Your task to perform on an android device: uninstall "Gmail" Image 0: 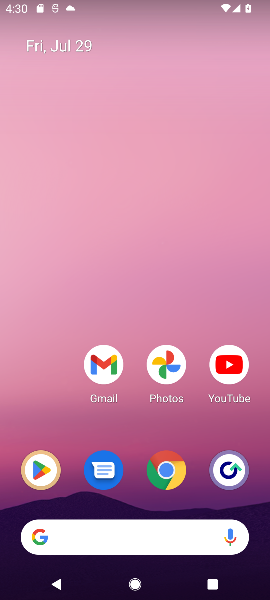
Step 0: click (50, 473)
Your task to perform on an android device: uninstall "Gmail" Image 1: 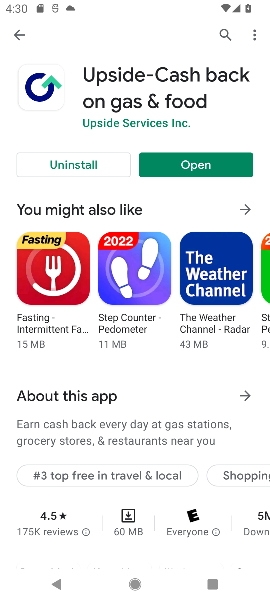
Step 1: click (221, 29)
Your task to perform on an android device: uninstall "Gmail" Image 2: 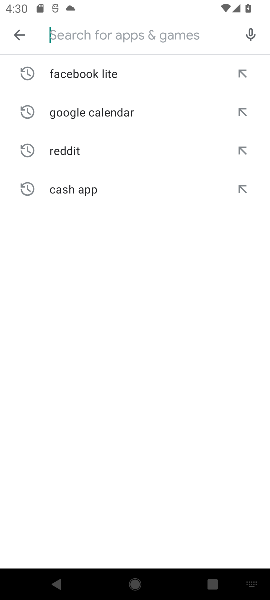
Step 2: type "gmail"
Your task to perform on an android device: uninstall "Gmail" Image 3: 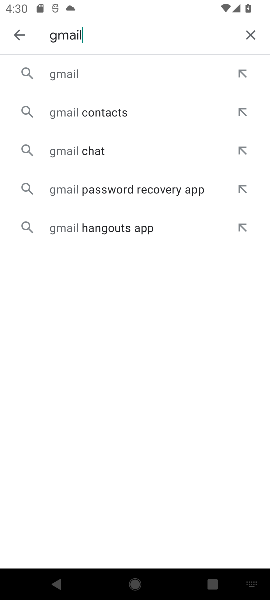
Step 3: click (97, 77)
Your task to perform on an android device: uninstall "Gmail" Image 4: 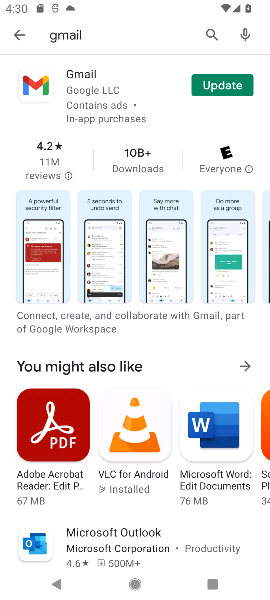
Step 4: click (229, 91)
Your task to perform on an android device: uninstall "Gmail" Image 5: 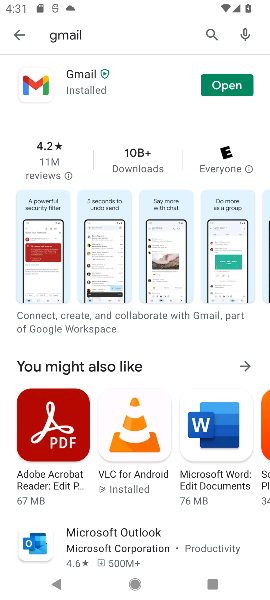
Step 5: task complete